Your task to perform on an android device: turn off location Image 0: 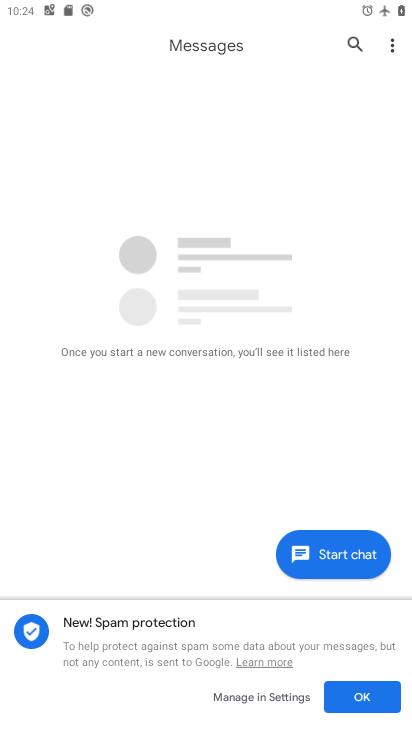
Step 0: press home button
Your task to perform on an android device: turn off location Image 1: 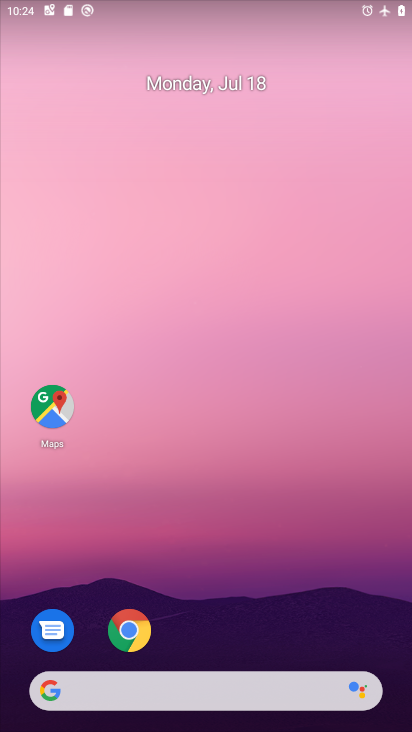
Step 1: drag from (217, 645) to (236, 231)
Your task to perform on an android device: turn off location Image 2: 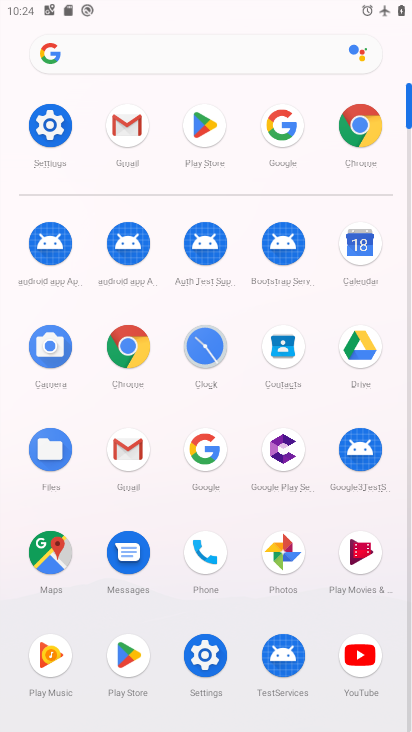
Step 2: click (70, 129)
Your task to perform on an android device: turn off location Image 3: 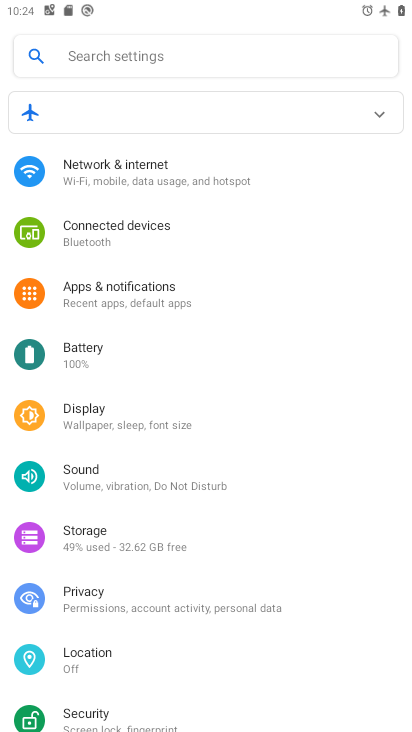
Step 3: click (162, 660)
Your task to perform on an android device: turn off location Image 4: 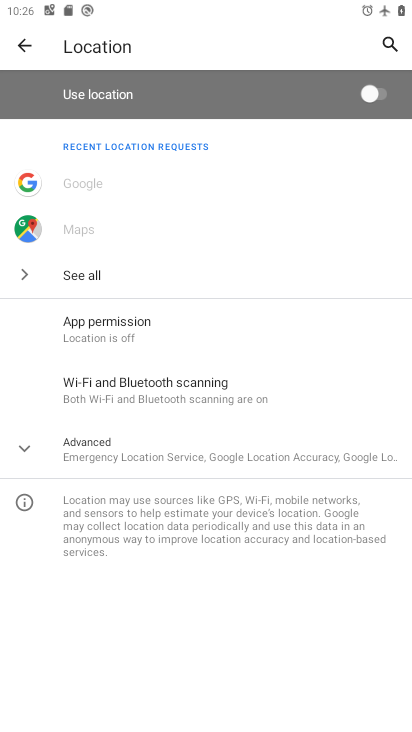
Step 4: task complete